Your task to perform on an android device: find photos in the google photos app Image 0: 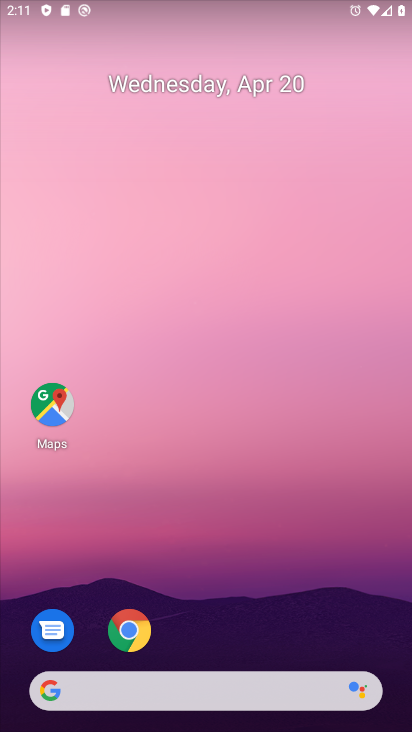
Step 0: drag from (196, 555) to (83, 117)
Your task to perform on an android device: find photos in the google photos app Image 1: 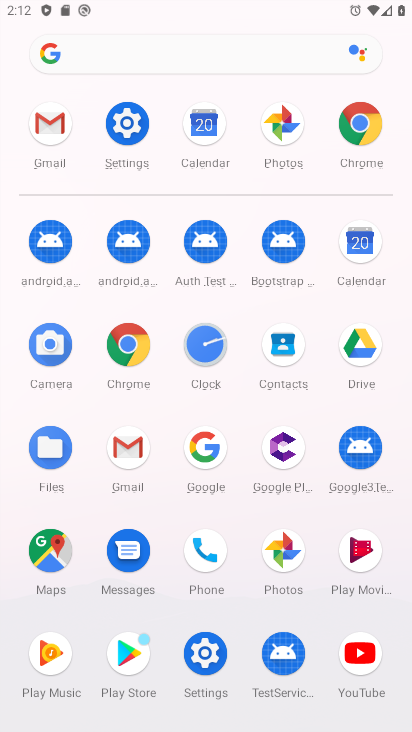
Step 1: click (285, 131)
Your task to perform on an android device: find photos in the google photos app Image 2: 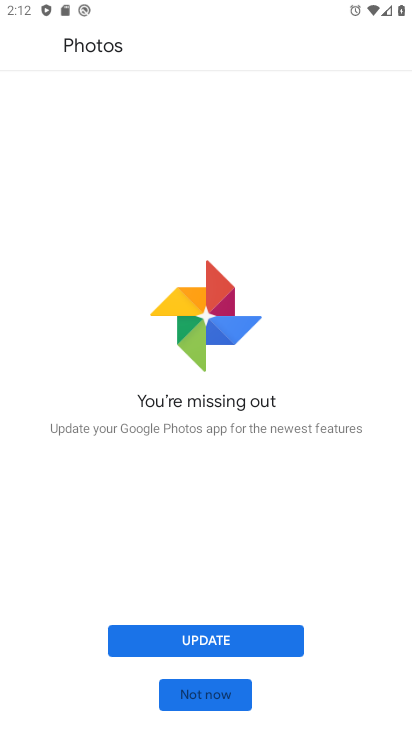
Step 2: click (207, 701)
Your task to perform on an android device: find photos in the google photos app Image 3: 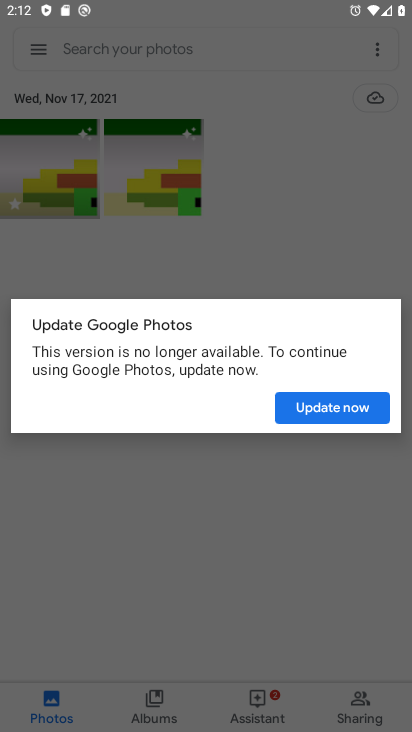
Step 3: task complete